Your task to perform on an android device: turn off wifi Image 0: 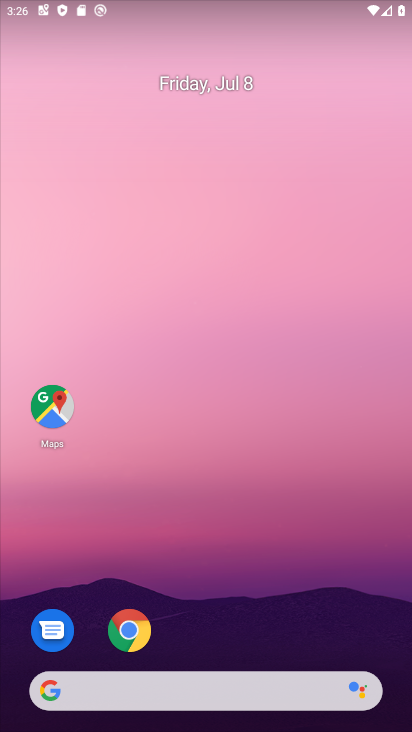
Step 0: drag from (227, 643) to (265, 109)
Your task to perform on an android device: turn off wifi Image 1: 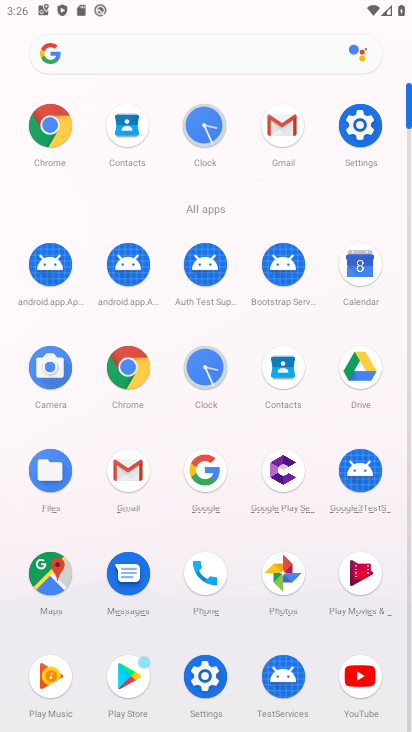
Step 1: click (359, 126)
Your task to perform on an android device: turn off wifi Image 2: 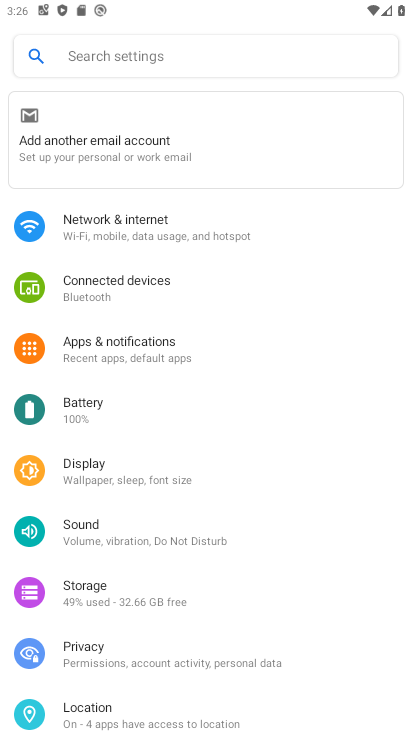
Step 2: click (138, 240)
Your task to perform on an android device: turn off wifi Image 3: 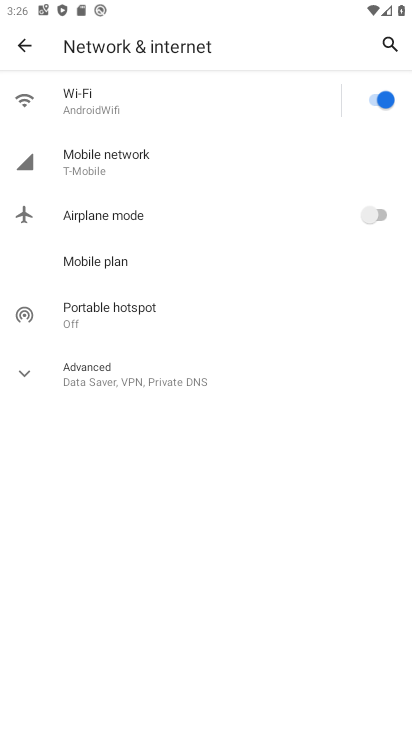
Step 3: click (376, 102)
Your task to perform on an android device: turn off wifi Image 4: 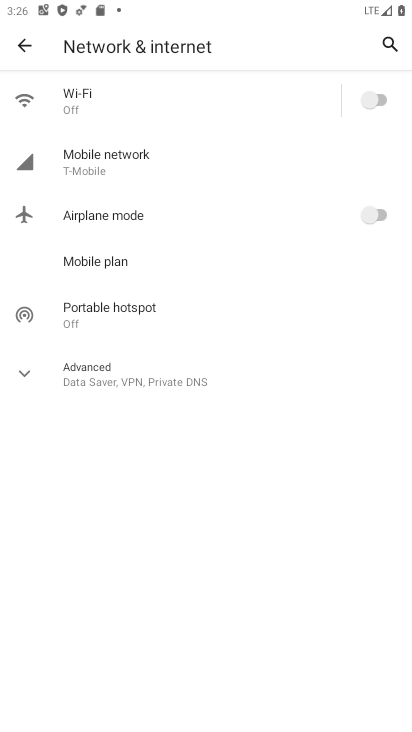
Step 4: task complete